Your task to perform on an android device: Show me popular videos on Youtube Image 0: 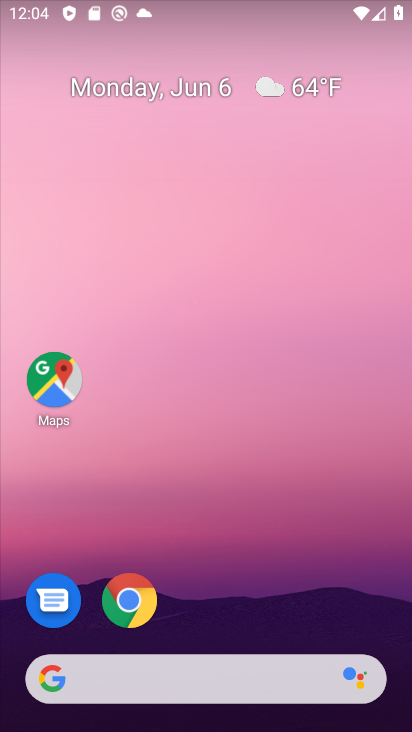
Step 0: drag from (351, 434) to (334, 59)
Your task to perform on an android device: Show me popular videos on Youtube Image 1: 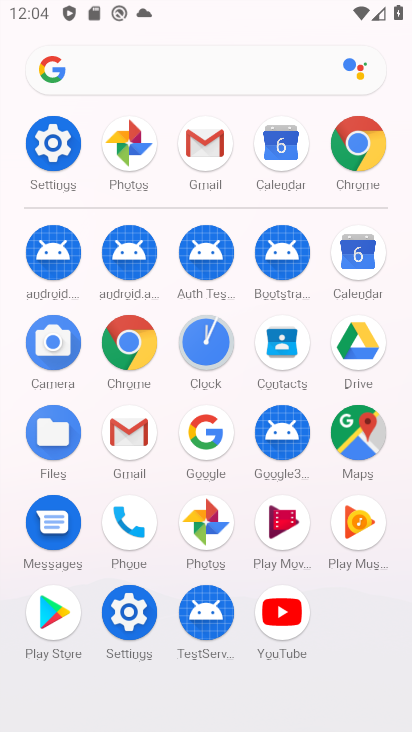
Step 1: click (283, 626)
Your task to perform on an android device: Show me popular videos on Youtube Image 2: 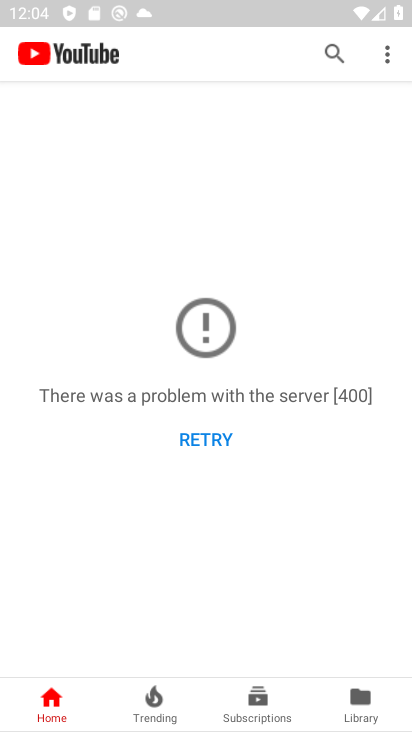
Step 2: task complete